Your task to perform on an android device: Go to calendar. Show me events next week Image 0: 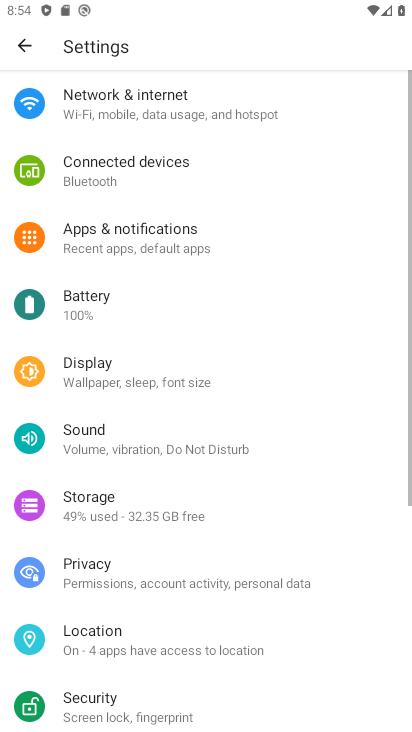
Step 0: press home button
Your task to perform on an android device: Go to calendar. Show me events next week Image 1: 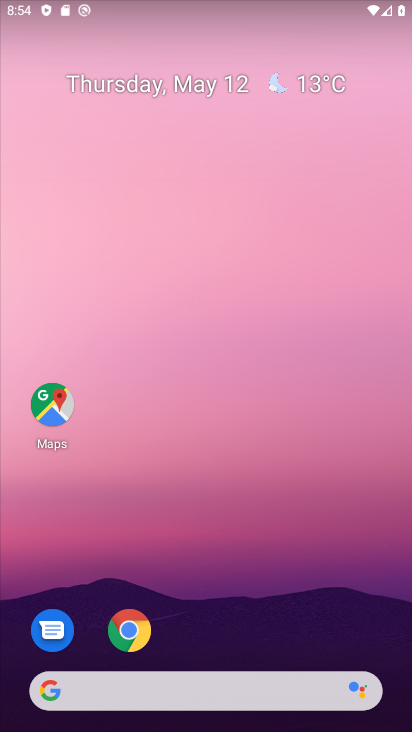
Step 1: drag from (170, 695) to (172, 240)
Your task to perform on an android device: Go to calendar. Show me events next week Image 2: 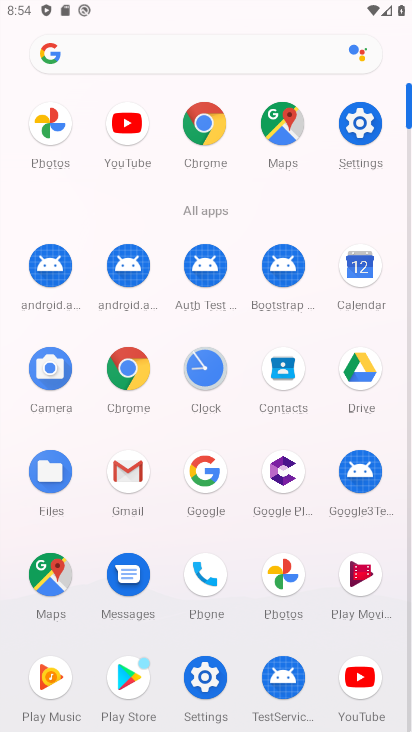
Step 2: click (374, 268)
Your task to perform on an android device: Go to calendar. Show me events next week Image 3: 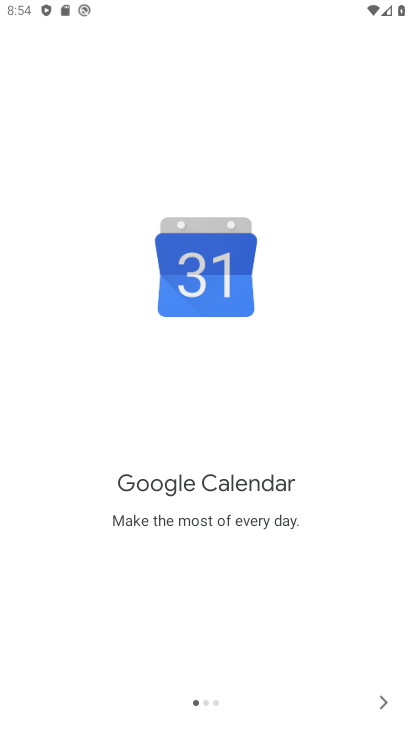
Step 3: click (373, 700)
Your task to perform on an android device: Go to calendar. Show me events next week Image 4: 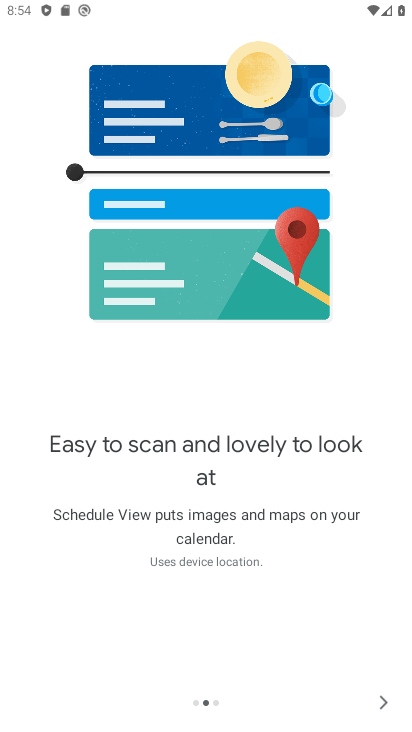
Step 4: click (360, 682)
Your task to perform on an android device: Go to calendar. Show me events next week Image 5: 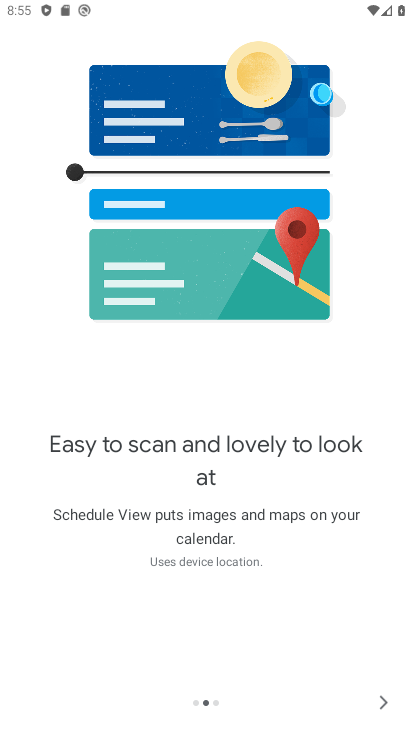
Step 5: click (373, 710)
Your task to perform on an android device: Go to calendar. Show me events next week Image 6: 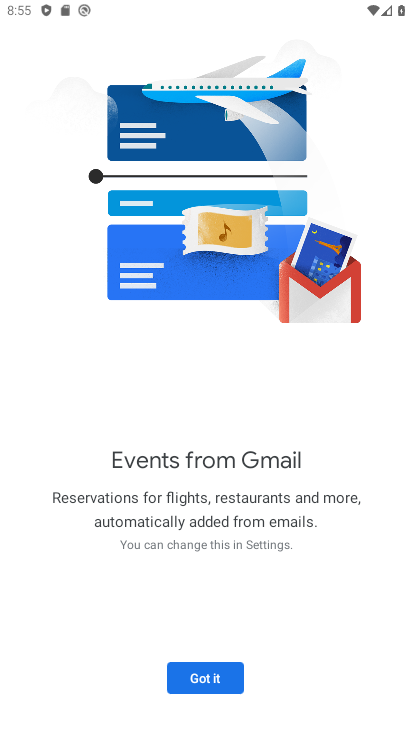
Step 6: click (373, 710)
Your task to perform on an android device: Go to calendar. Show me events next week Image 7: 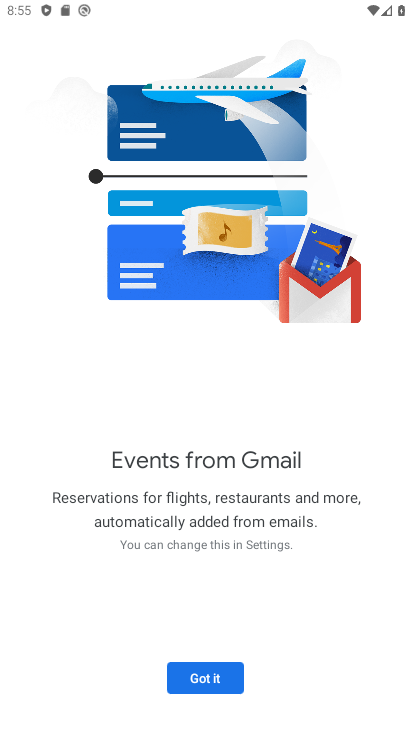
Step 7: click (188, 668)
Your task to perform on an android device: Go to calendar. Show me events next week Image 8: 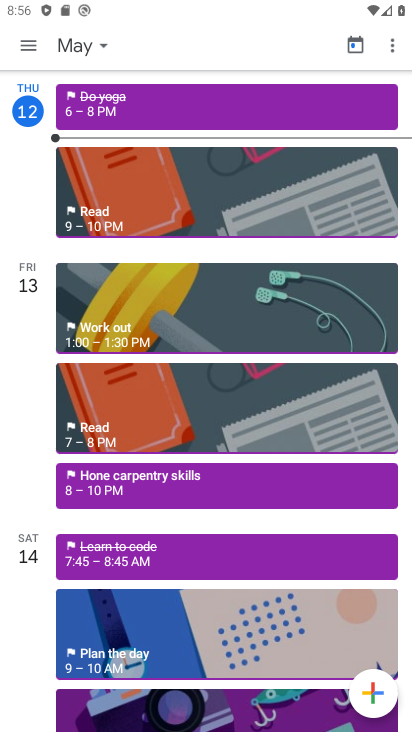
Step 8: click (26, 39)
Your task to perform on an android device: Go to calendar. Show me events next week Image 9: 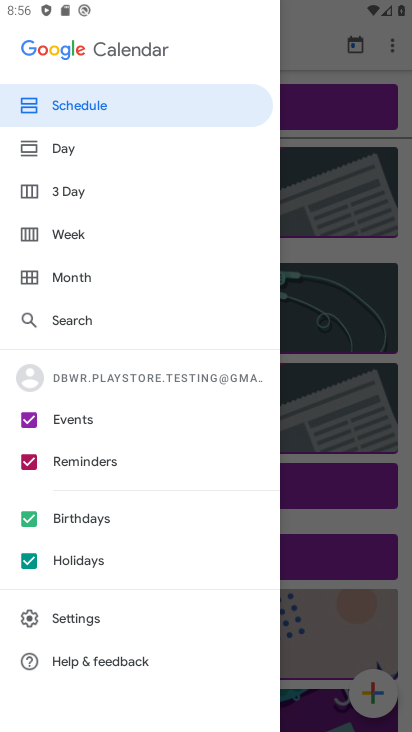
Step 9: click (91, 222)
Your task to perform on an android device: Go to calendar. Show me events next week Image 10: 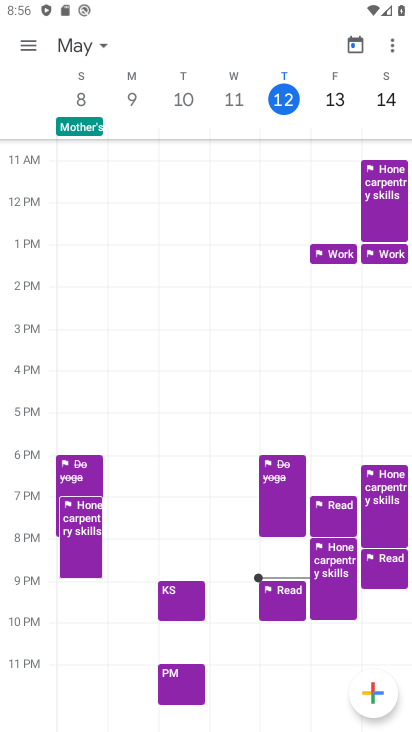
Step 10: task complete